Your task to perform on an android device: change the clock style Image 0: 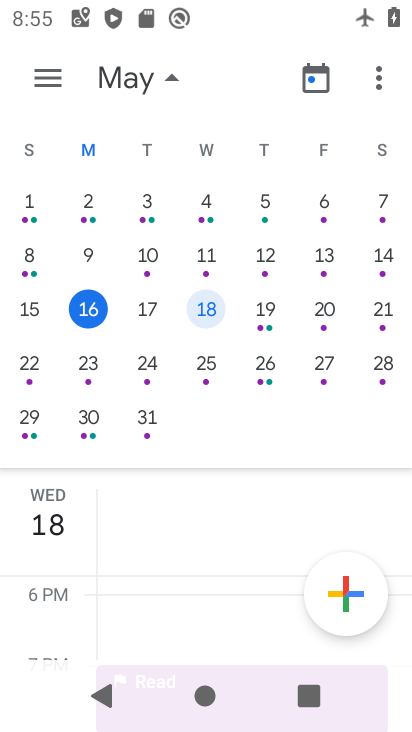
Step 0: press home button
Your task to perform on an android device: change the clock style Image 1: 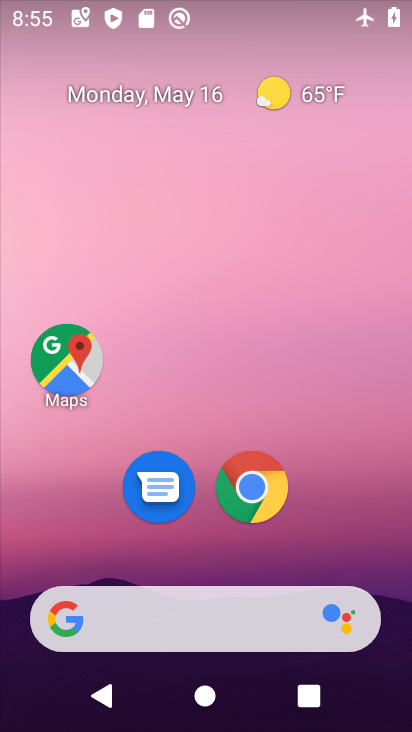
Step 1: drag from (335, 536) to (341, 245)
Your task to perform on an android device: change the clock style Image 2: 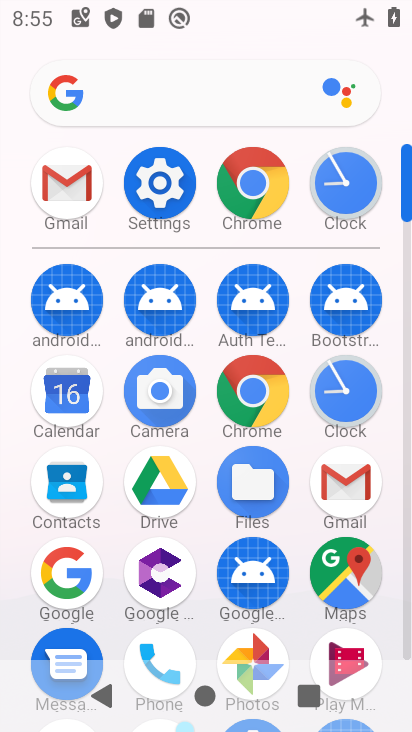
Step 2: click (358, 390)
Your task to perform on an android device: change the clock style Image 3: 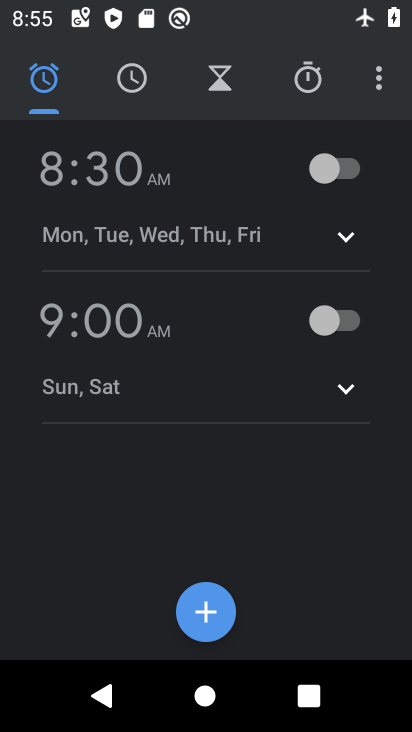
Step 3: click (382, 96)
Your task to perform on an android device: change the clock style Image 4: 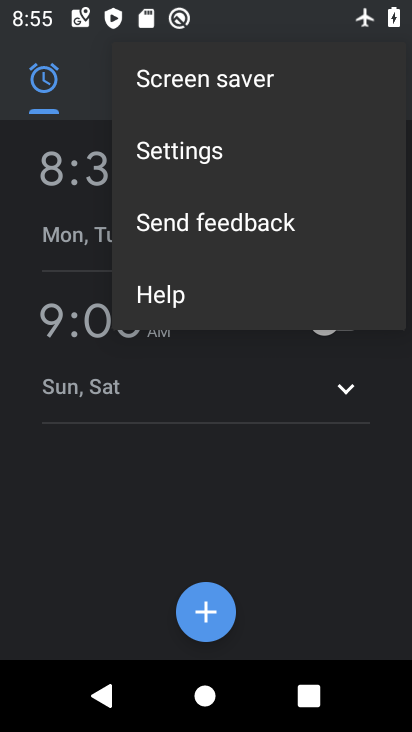
Step 4: click (200, 182)
Your task to perform on an android device: change the clock style Image 5: 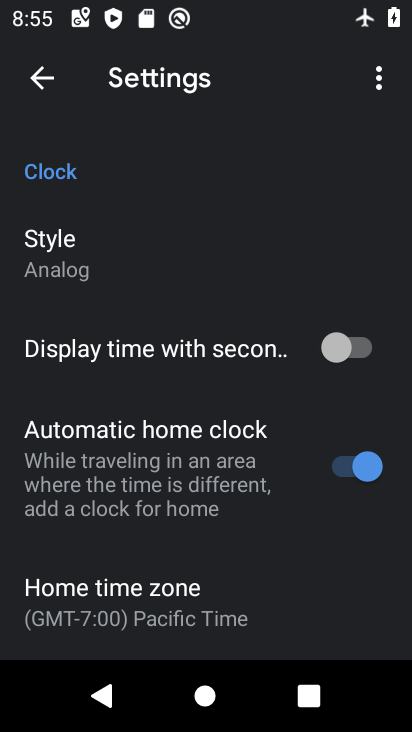
Step 5: drag from (287, 556) to (304, 307)
Your task to perform on an android device: change the clock style Image 6: 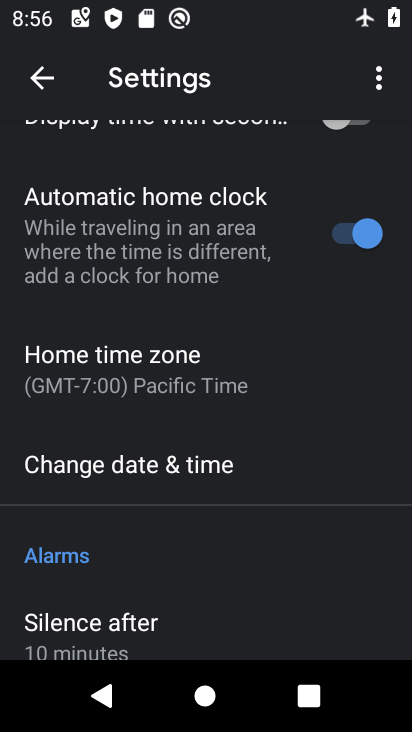
Step 6: drag from (298, 536) to (315, 307)
Your task to perform on an android device: change the clock style Image 7: 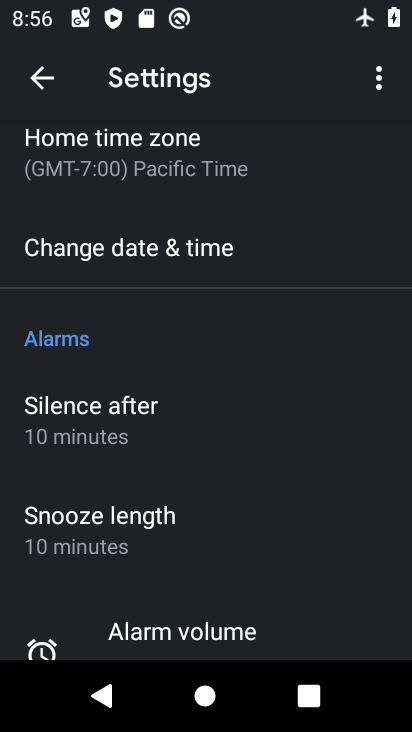
Step 7: drag from (302, 544) to (309, 341)
Your task to perform on an android device: change the clock style Image 8: 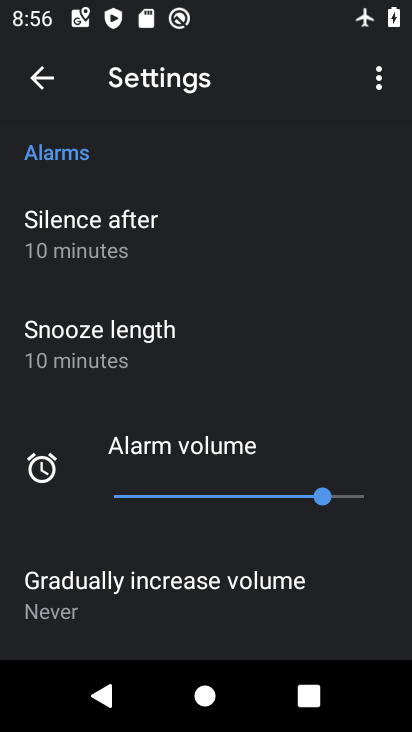
Step 8: drag from (309, 559) to (309, 371)
Your task to perform on an android device: change the clock style Image 9: 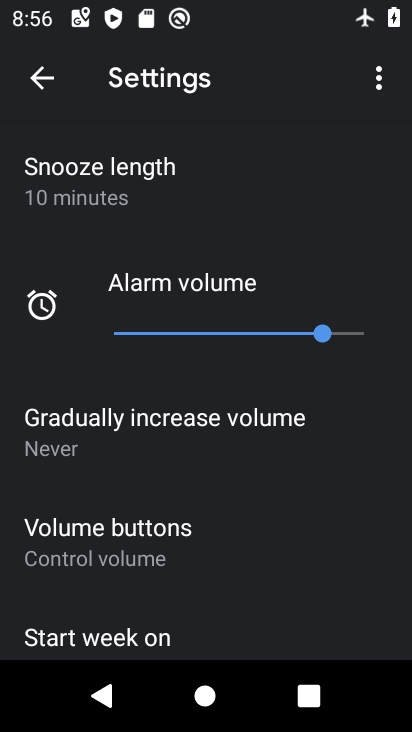
Step 9: drag from (284, 585) to (279, 350)
Your task to perform on an android device: change the clock style Image 10: 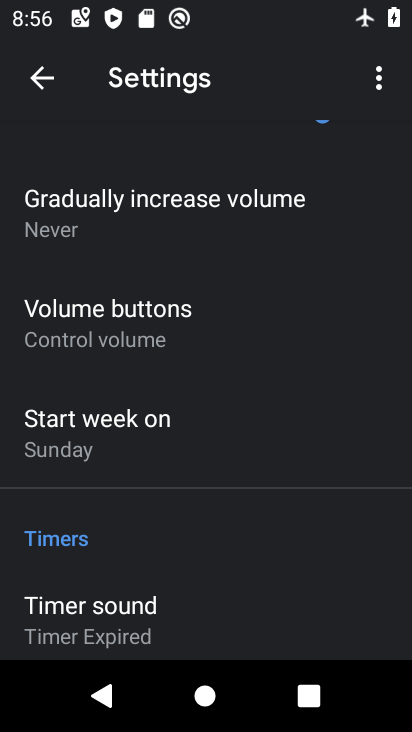
Step 10: drag from (286, 565) to (282, 340)
Your task to perform on an android device: change the clock style Image 11: 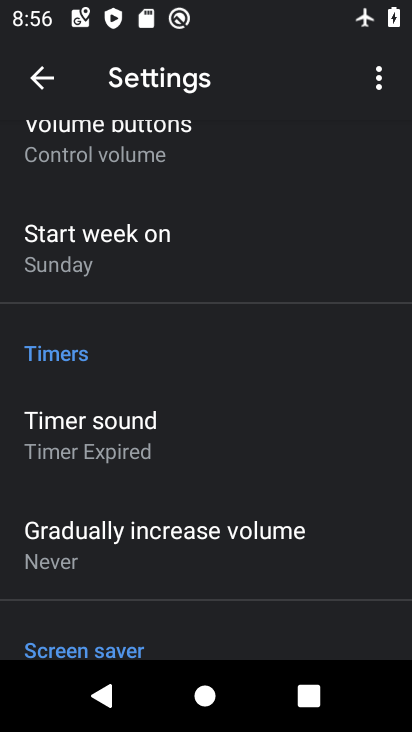
Step 11: drag from (289, 585) to (305, 386)
Your task to perform on an android device: change the clock style Image 12: 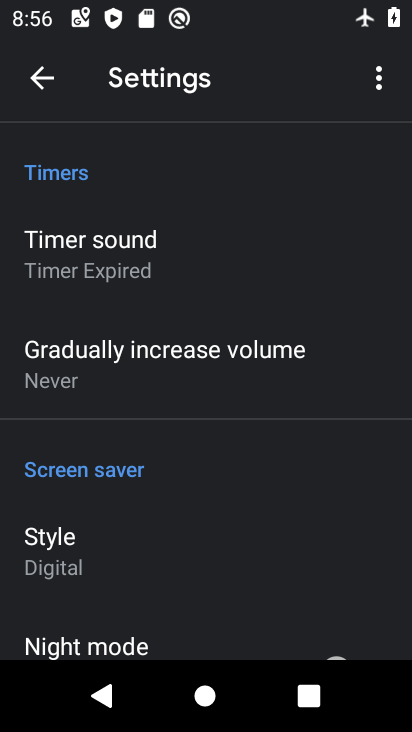
Step 12: drag from (268, 247) to (265, 528)
Your task to perform on an android device: change the clock style Image 13: 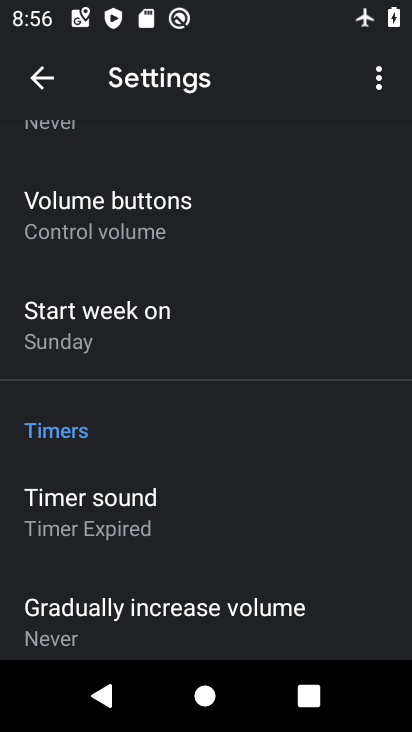
Step 13: drag from (274, 245) to (247, 481)
Your task to perform on an android device: change the clock style Image 14: 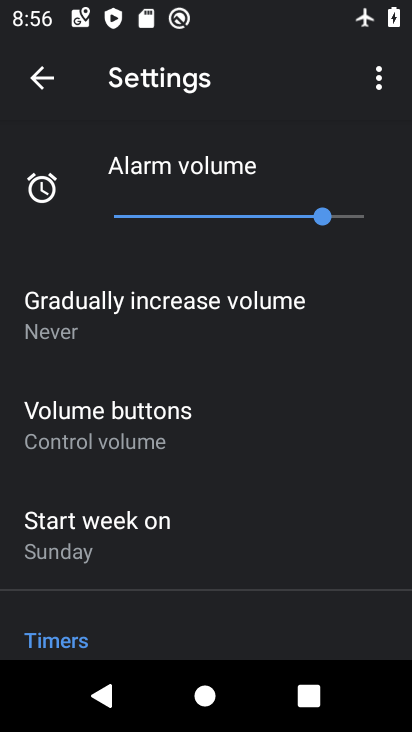
Step 14: drag from (259, 173) to (252, 511)
Your task to perform on an android device: change the clock style Image 15: 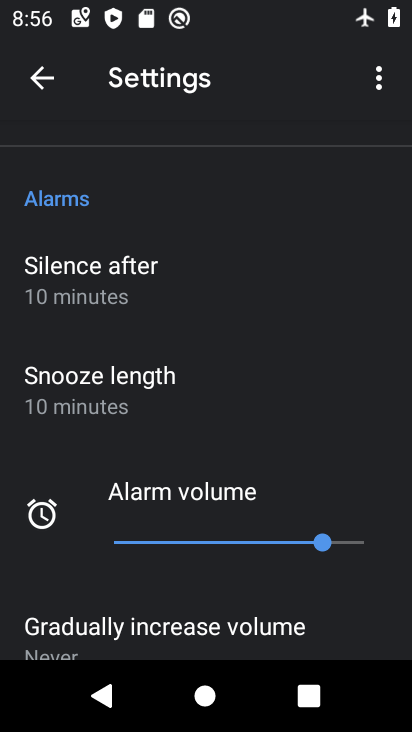
Step 15: drag from (270, 253) to (247, 475)
Your task to perform on an android device: change the clock style Image 16: 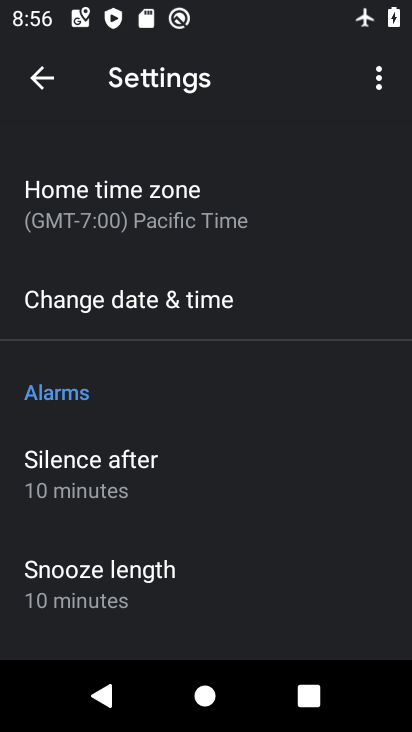
Step 16: drag from (298, 186) to (269, 429)
Your task to perform on an android device: change the clock style Image 17: 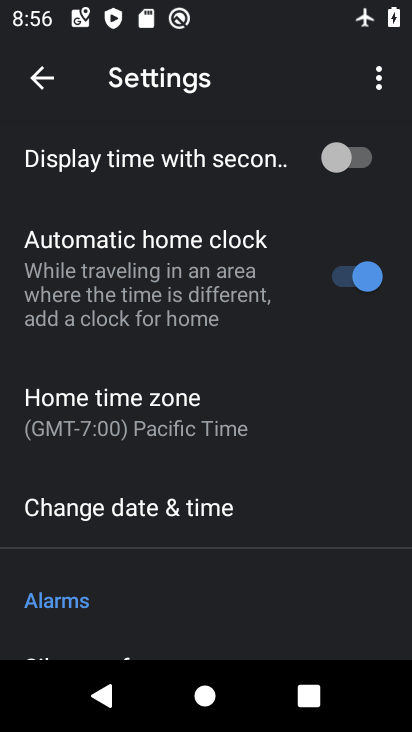
Step 17: drag from (295, 286) to (276, 490)
Your task to perform on an android device: change the clock style Image 18: 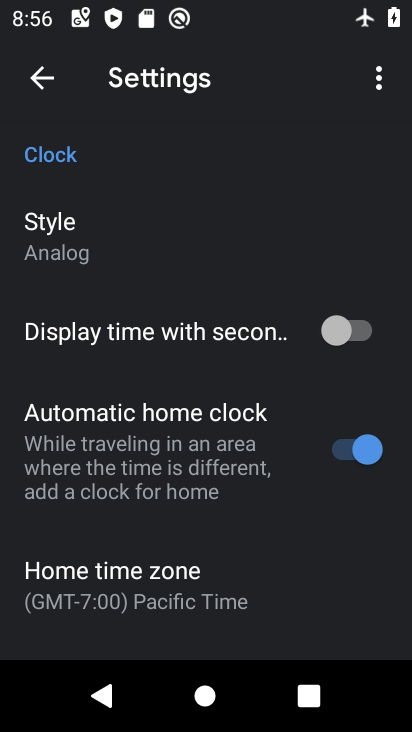
Step 18: click (77, 250)
Your task to perform on an android device: change the clock style Image 19: 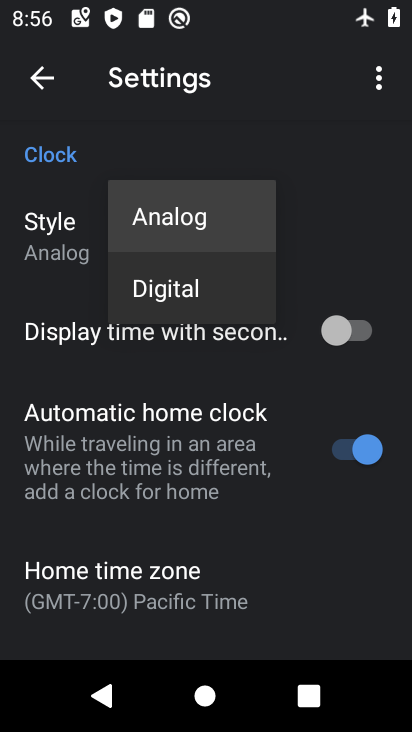
Step 19: click (180, 280)
Your task to perform on an android device: change the clock style Image 20: 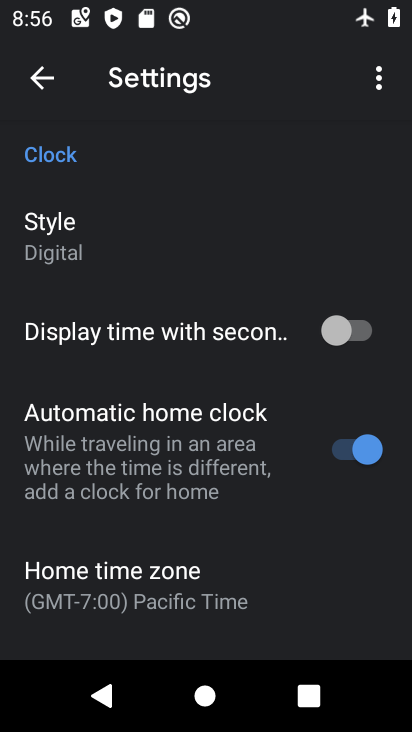
Step 20: task complete